Your task to perform on an android device: Go to internet settings Image 0: 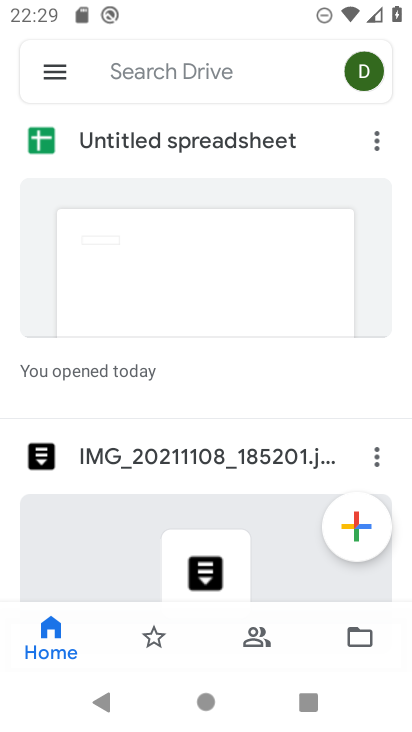
Step 0: press home button
Your task to perform on an android device: Go to internet settings Image 1: 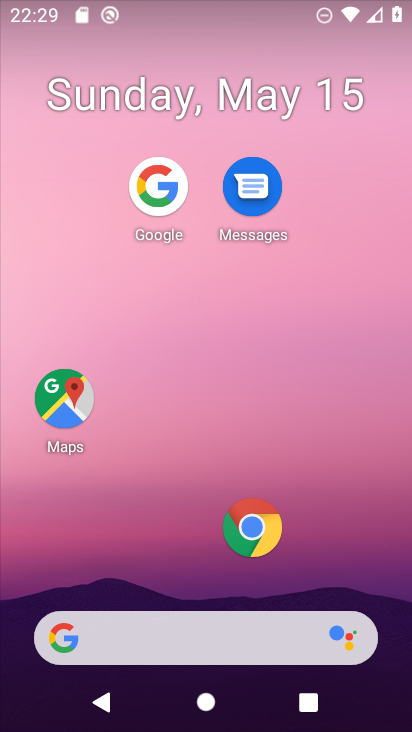
Step 1: drag from (181, 623) to (320, 128)
Your task to perform on an android device: Go to internet settings Image 2: 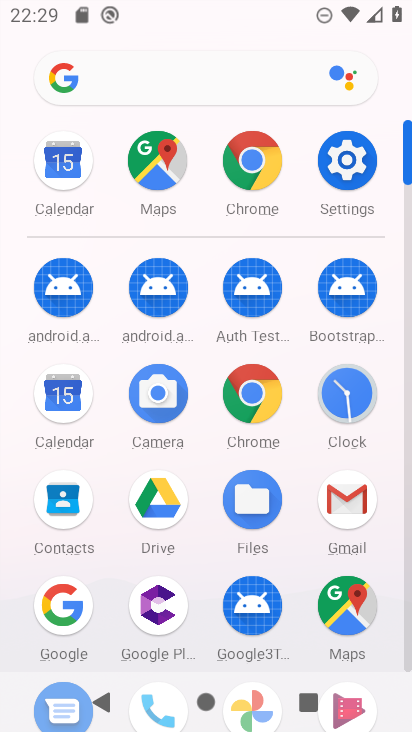
Step 2: click (355, 166)
Your task to perform on an android device: Go to internet settings Image 3: 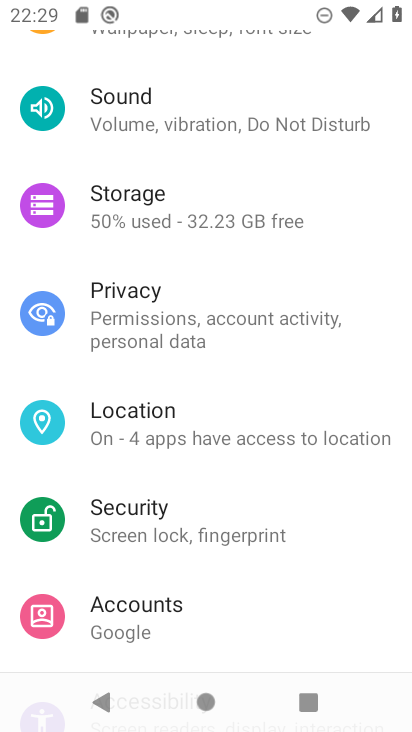
Step 3: drag from (277, 77) to (159, 558)
Your task to perform on an android device: Go to internet settings Image 4: 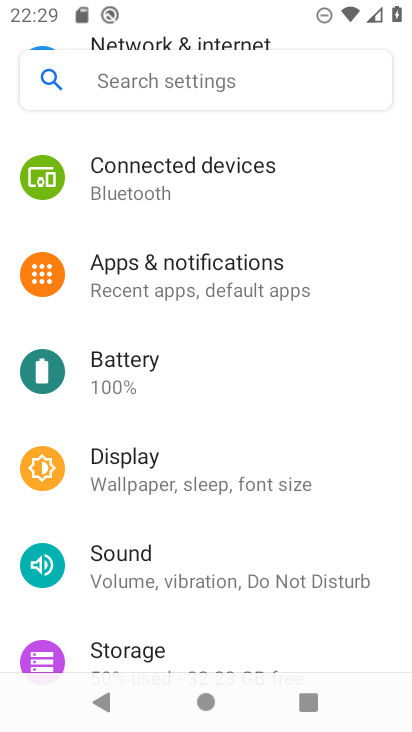
Step 4: drag from (305, 214) to (224, 595)
Your task to perform on an android device: Go to internet settings Image 5: 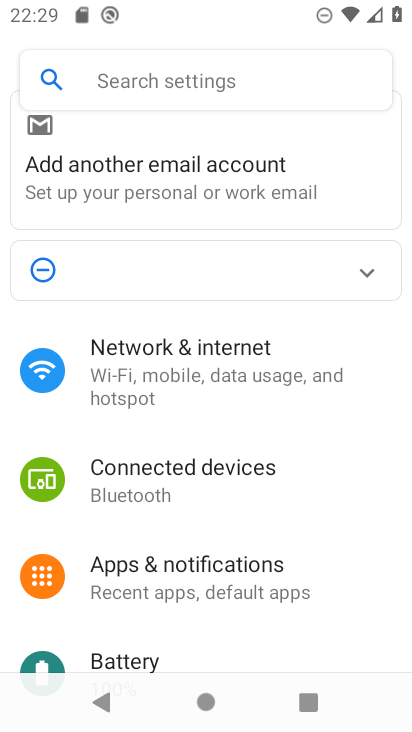
Step 5: click (220, 349)
Your task to perform on an android device: Go to internet settings Image 6: 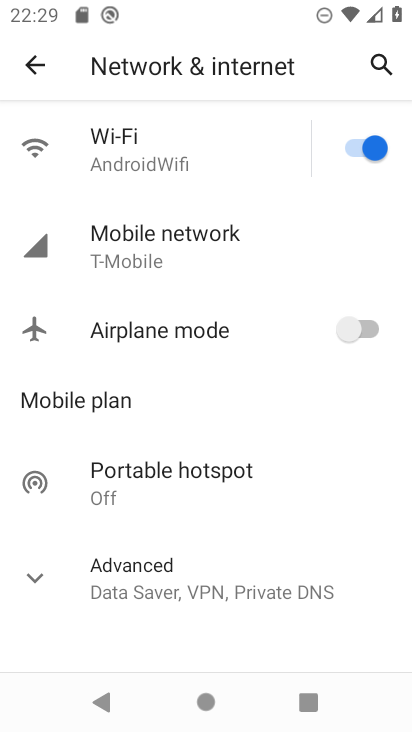
Step 6: click (149, 162)
Your task to perform on an android device: Go to internet settings Image 7: 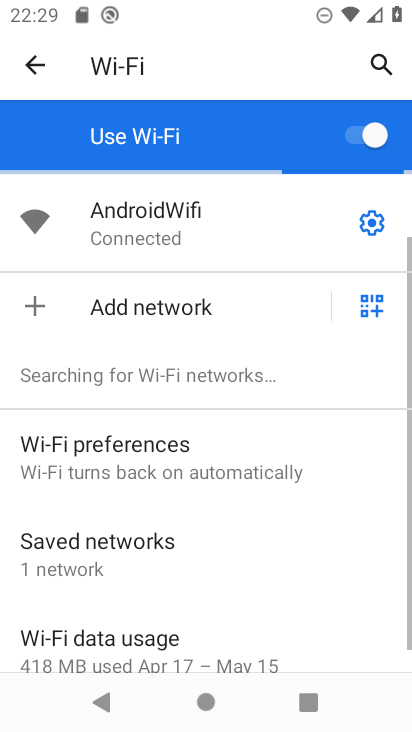
Step 7: task complete